Your task to perform on an android device: Open Reddit.com Image 0: 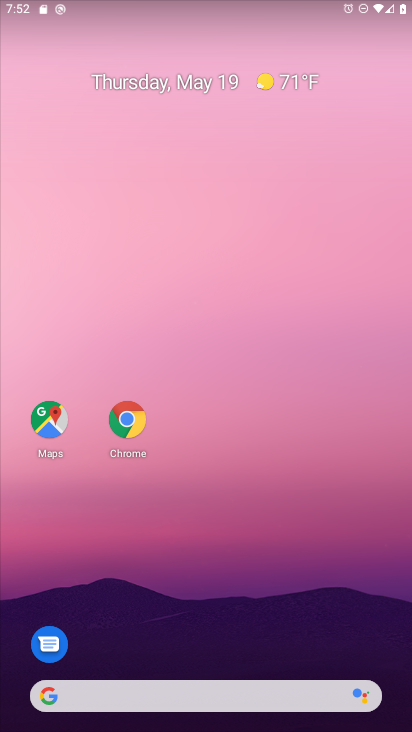
Step 0: drag from (149, 679) to (195, 219)
Your task to perform on an android device: Open Reddit.com Image 1: 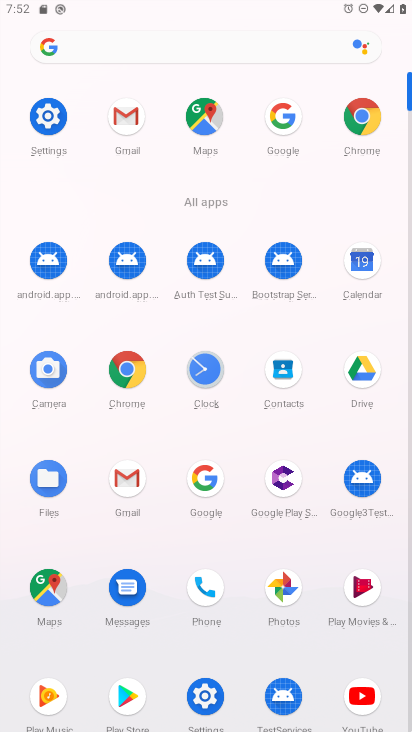
Step 1: click (195, 483)
Your task to perform on an android device: Open Reddit.com Image 2: 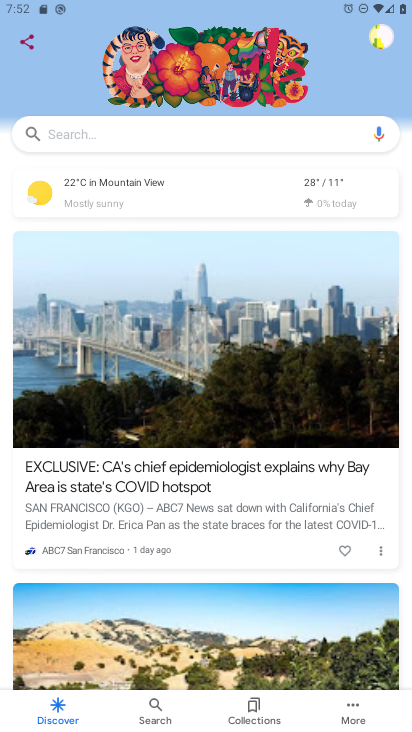
Step 2: click (149, 133)
Your task to perform on an android device: Open Reddit.com Image 3: 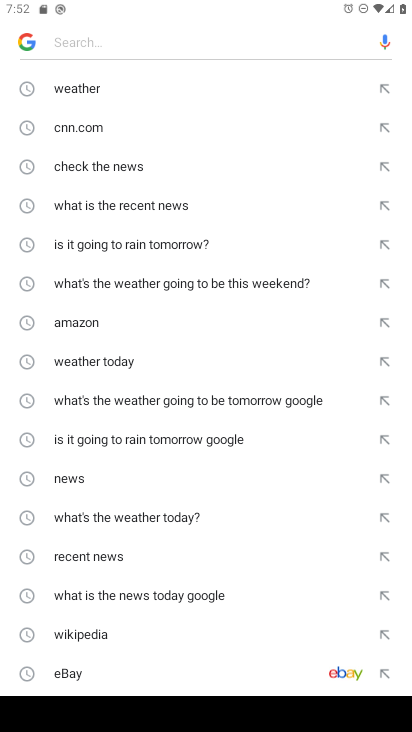
Step 3: drag from (110, 663) to (165, 336)
Your task to perform on an android device: Open Reddit.com Image 4: 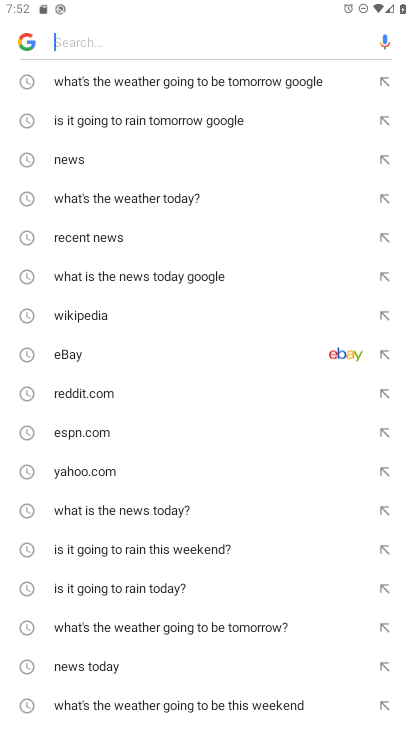
Step 4: click (79, 388)
Your task to perform on an android device: Open Reddit.com Image 5: 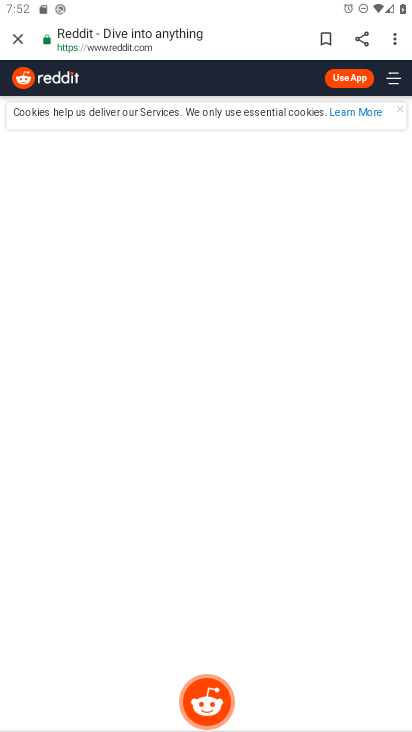
Step 5: task complete